Your task to perform on an android device: uninstall "Google Chat" Image 0: 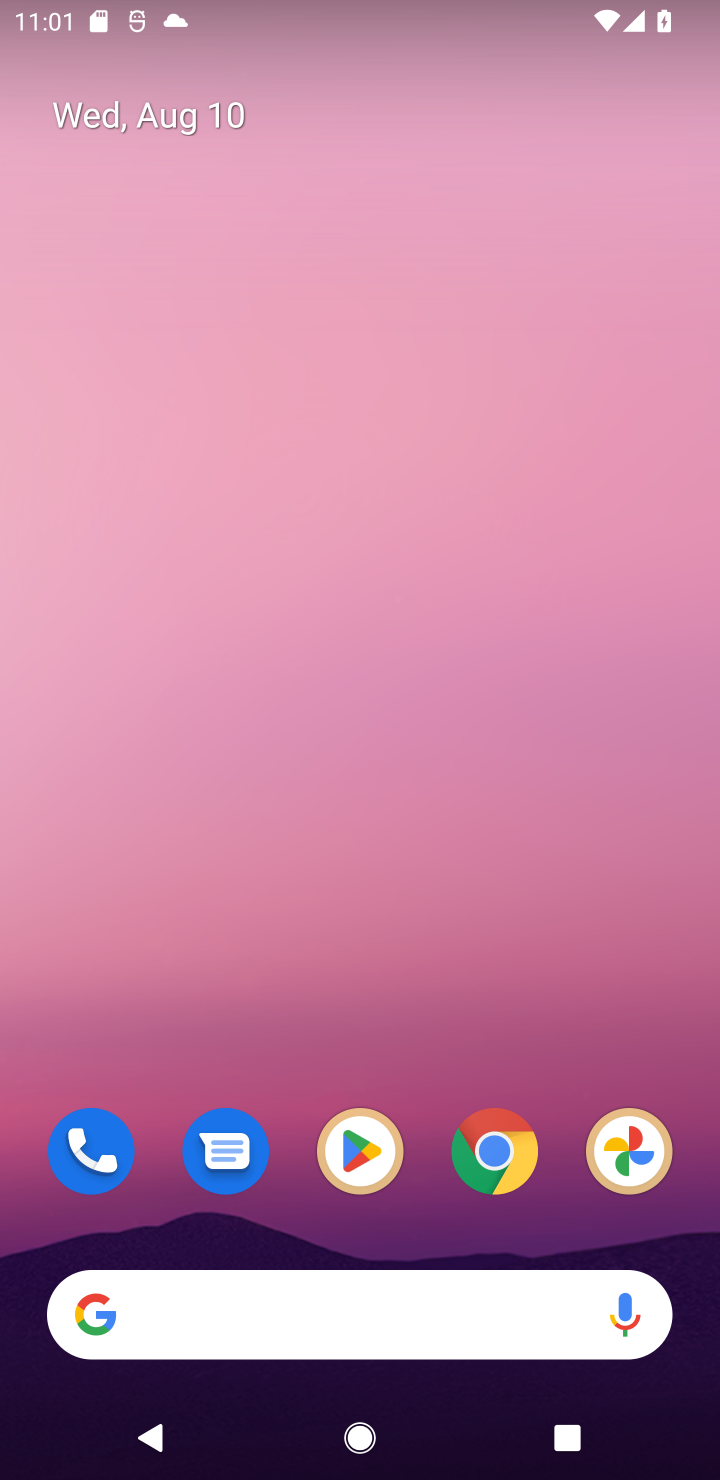
Step 0: press home button
Your task to perform on an android device: uninstall "Google Chat" Image 1: 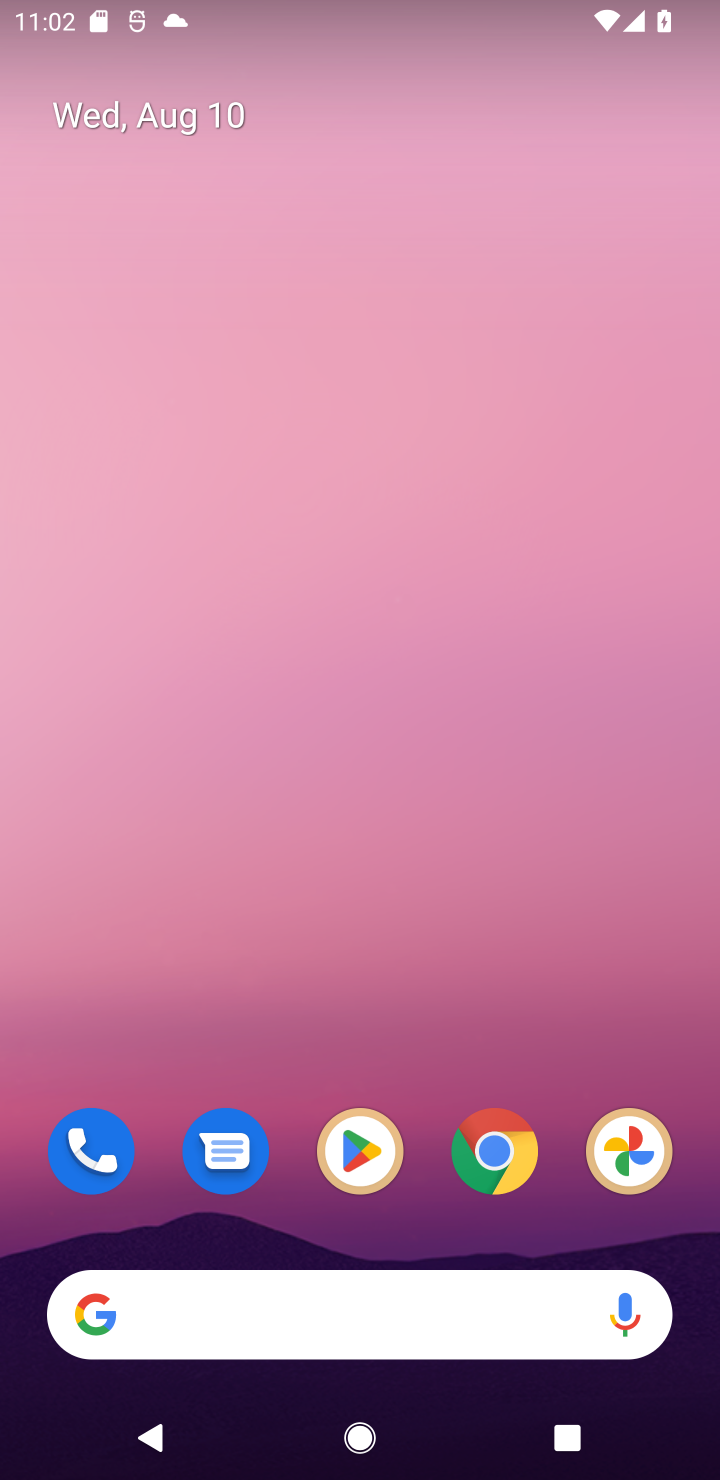
Step 1: drag from (414, 1107) to (402, 56)
Your task to perform on an android device: uninstall "Google Chat" Image 2: 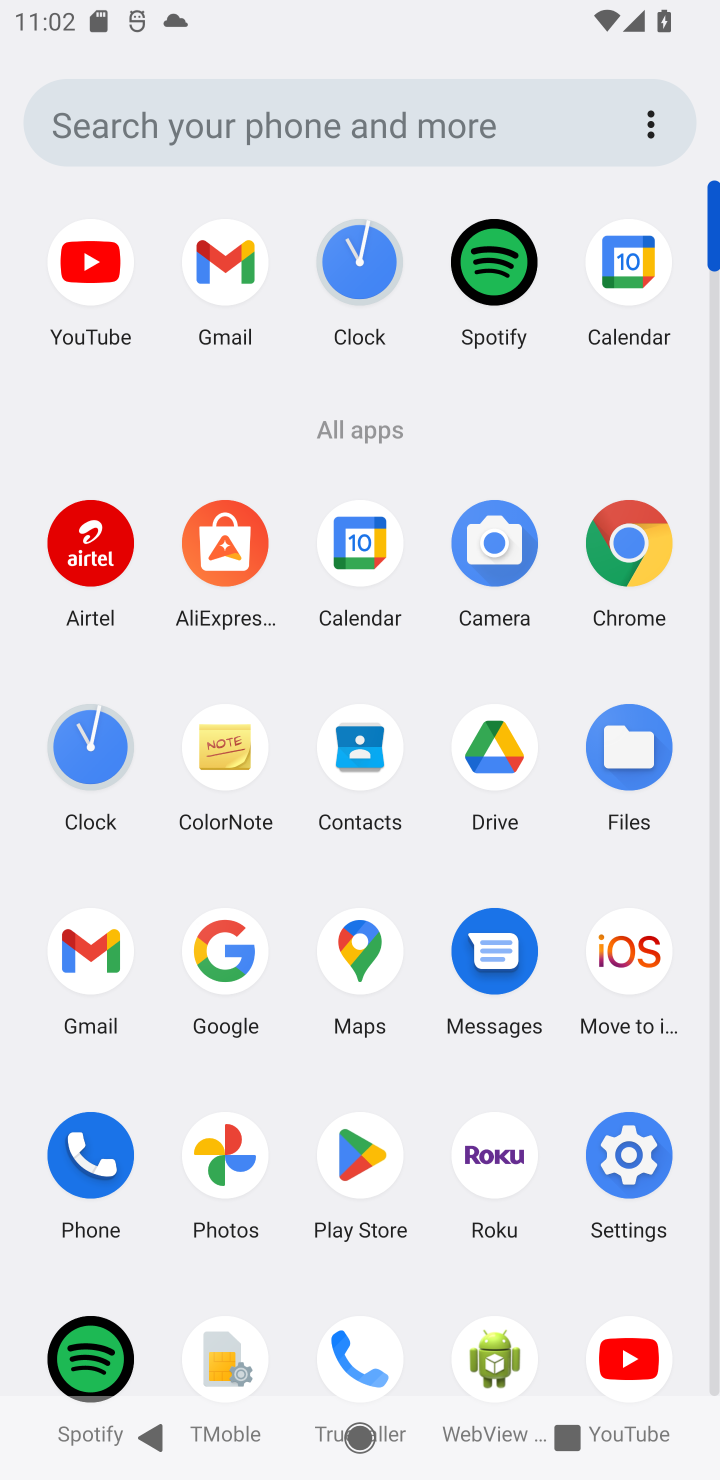
Step 2: click (349, 1142)
Your task to perform on an android device: uninstall "Google Chat" Image 3: 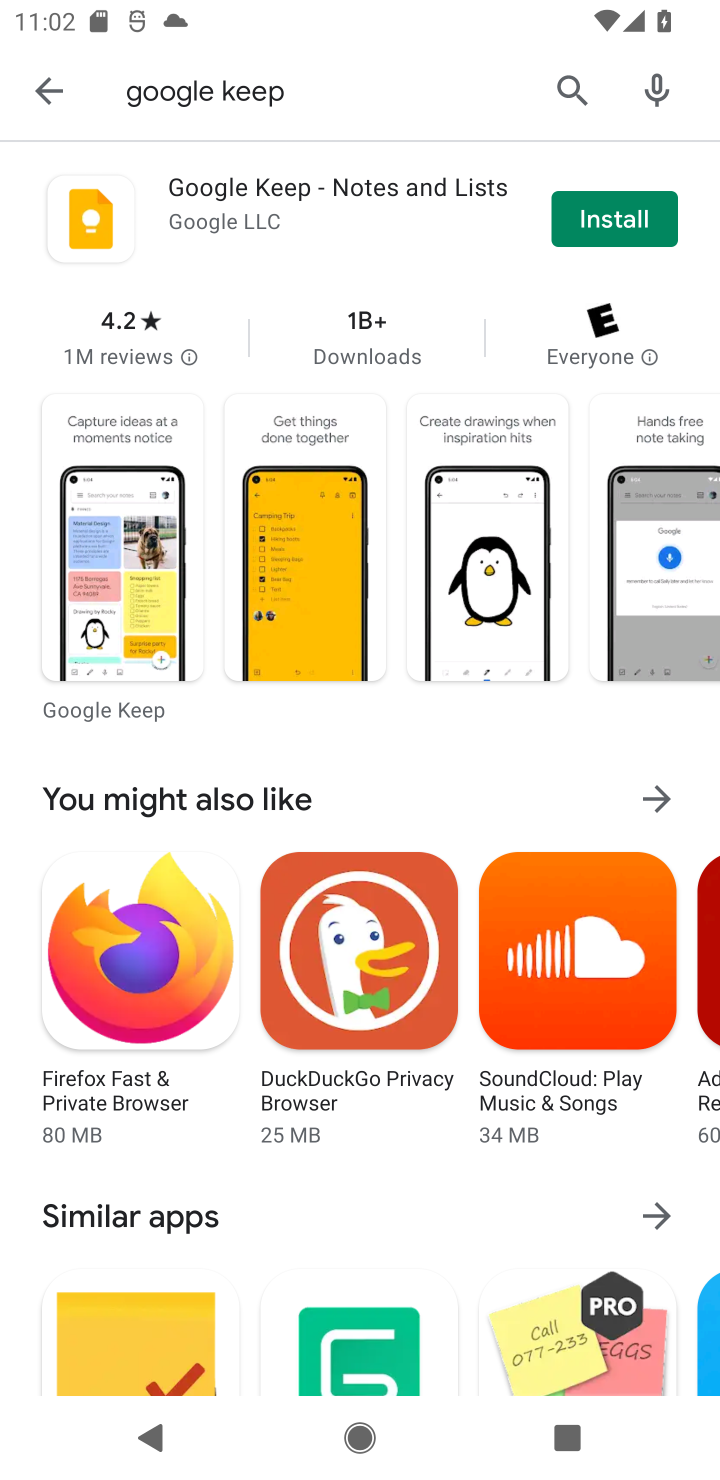
Step 3: click (560, 80)
Your task to perform on an android device: uninstall "Google Chat" Image 4: 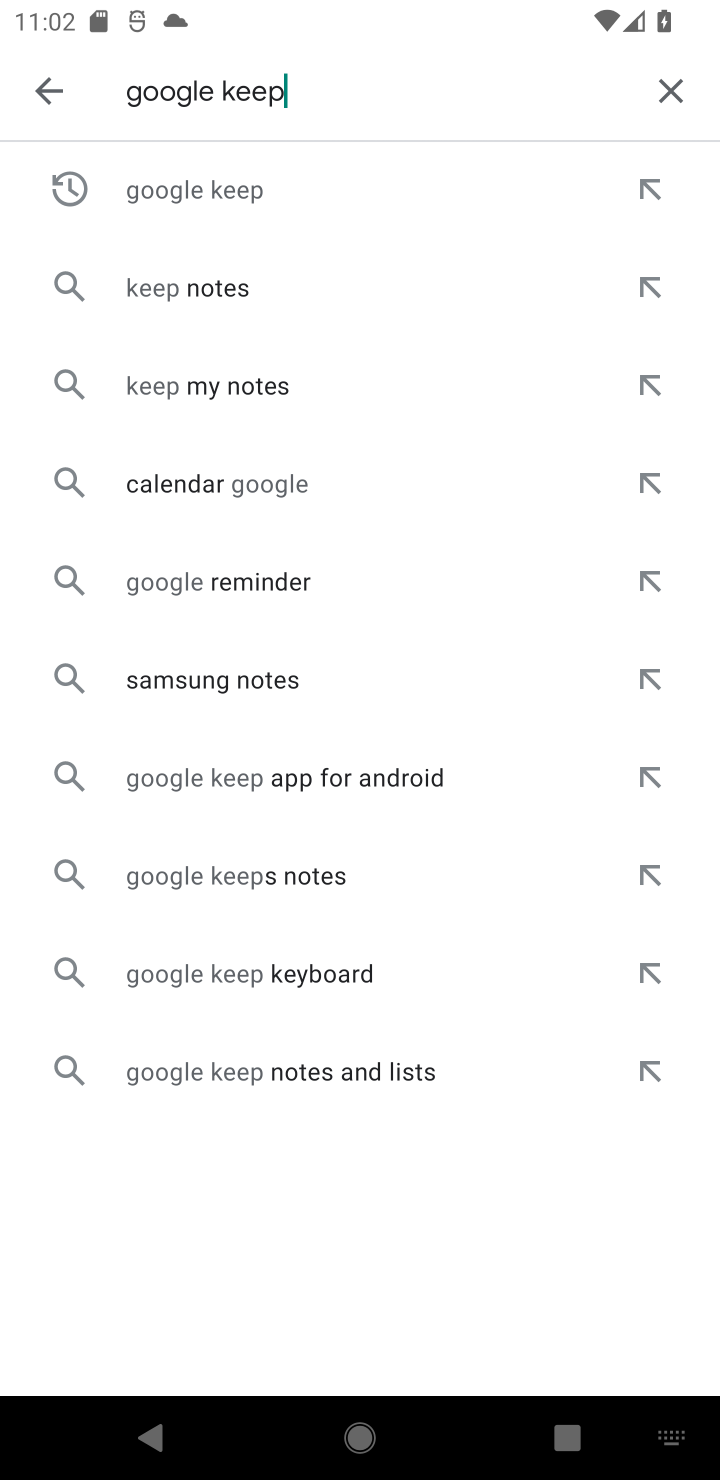
Step 4: click (663, 87)
Your task to perform on an android device: uninstall "Google Chat" Image 5: 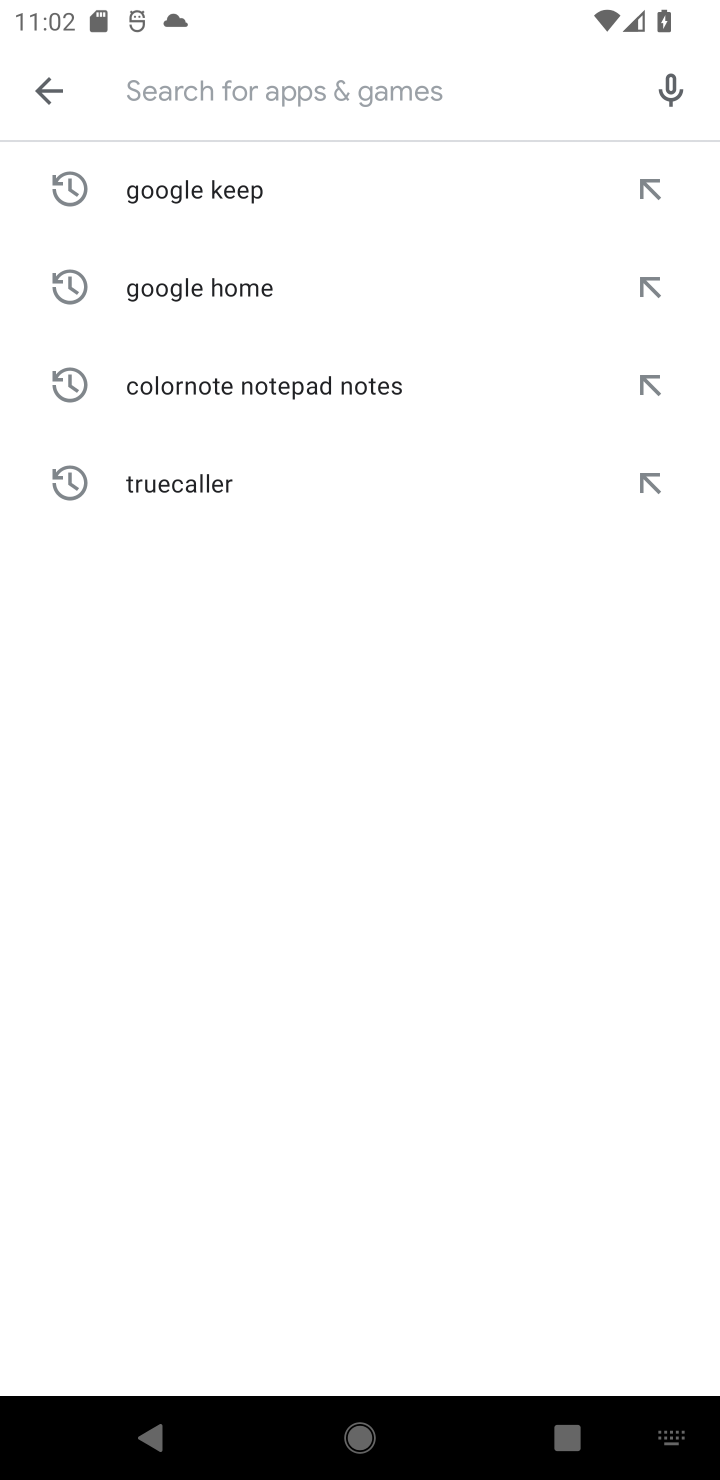
Step 5: type "Google Chat"
Your task to perform on an android device: uninstall "Google Chat" Image 6: 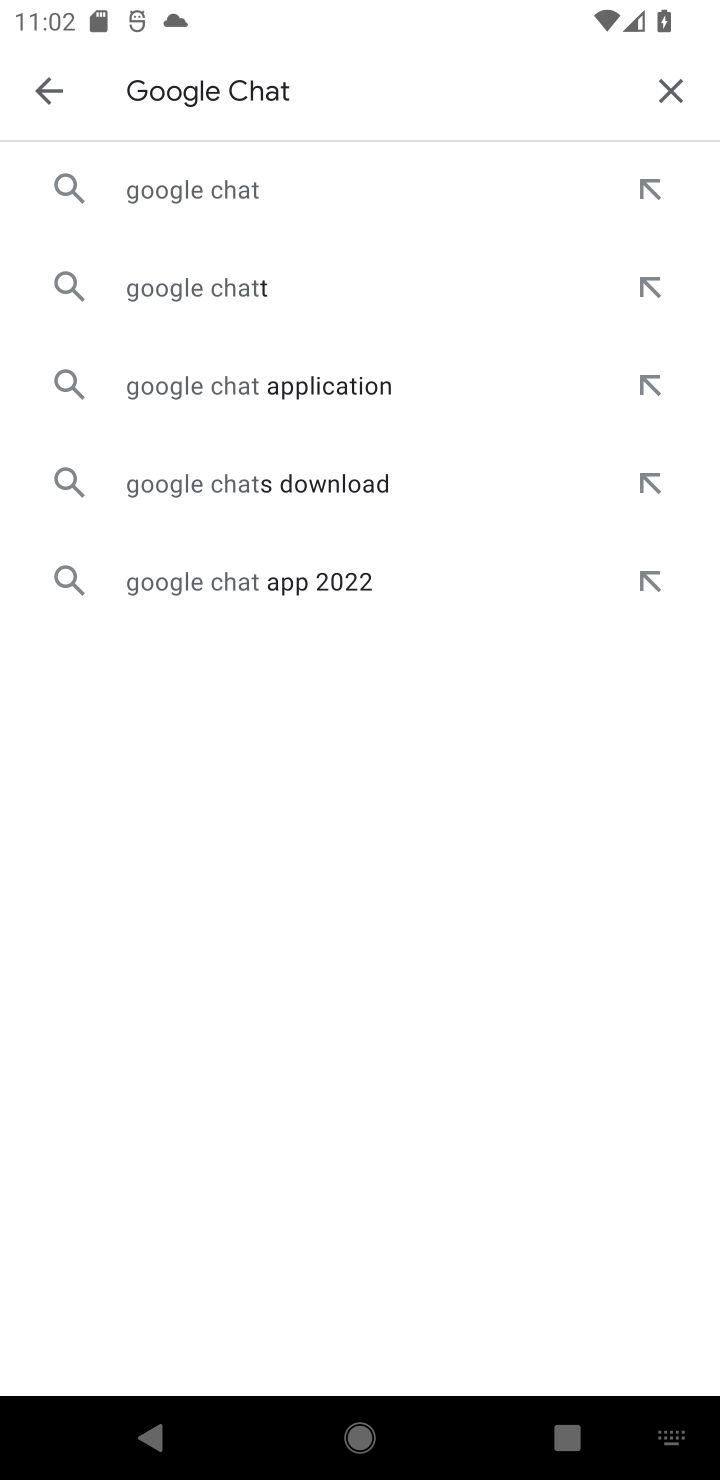
Step 6: click (232, 190)
Your task to perform on an android device: uninstall "Google Chat" Image 7: 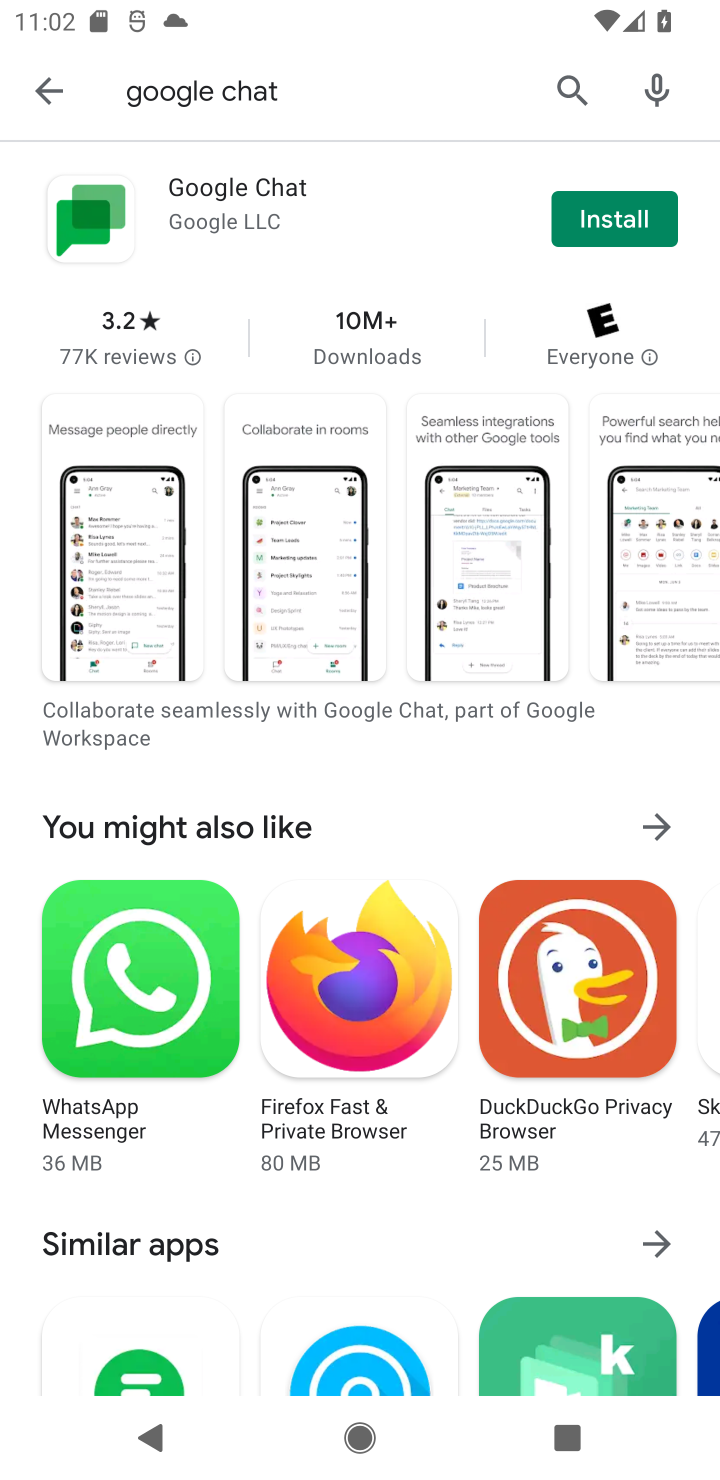
Step 7: task complete